Your task to perform on an android device: turn off notifications in google photos Image 0: 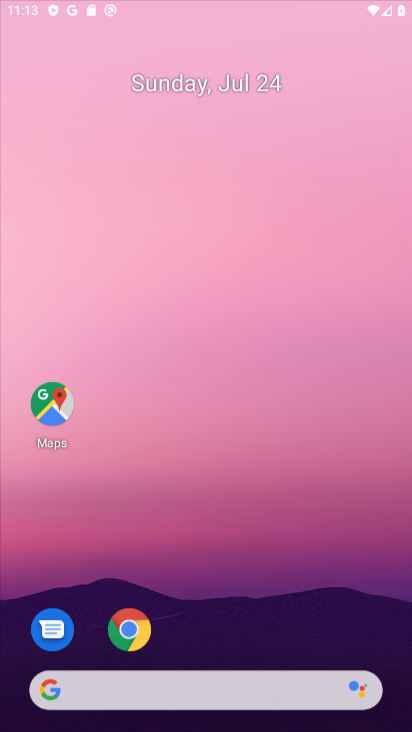
Step 0: press home button
Your task to perform on an android device: turn off notifications in google photos Image 1: 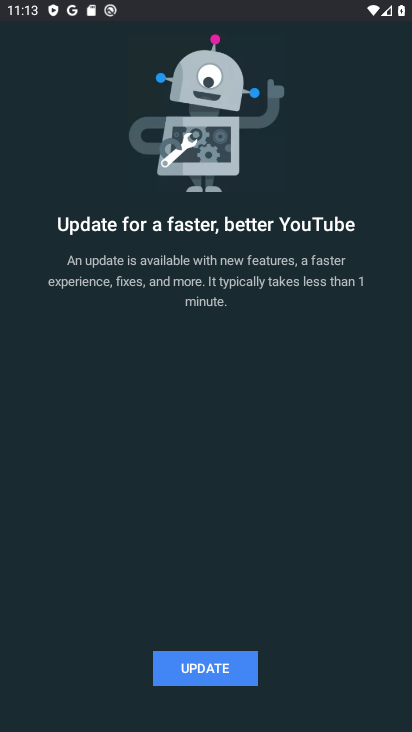
Step 1: press home button
Your task to perform on an android device: turn off notifications in google photos Image 2: 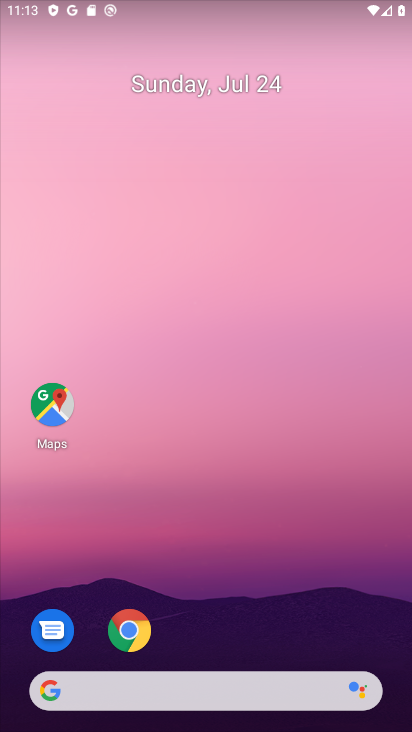
Step 2: drag from (324, 627) to (256, 263)
Your task to perform on an android device: turn off notifications in google photos Image 3: 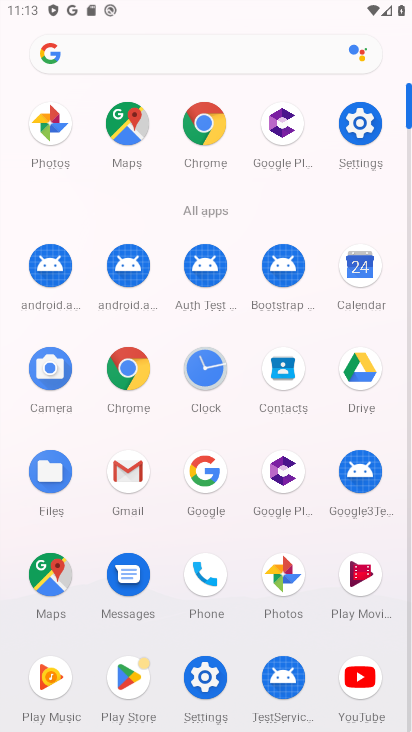
Step 3: click (273, 595)
Your task to perform on an android device: turn off notifications in google photos Image 4: 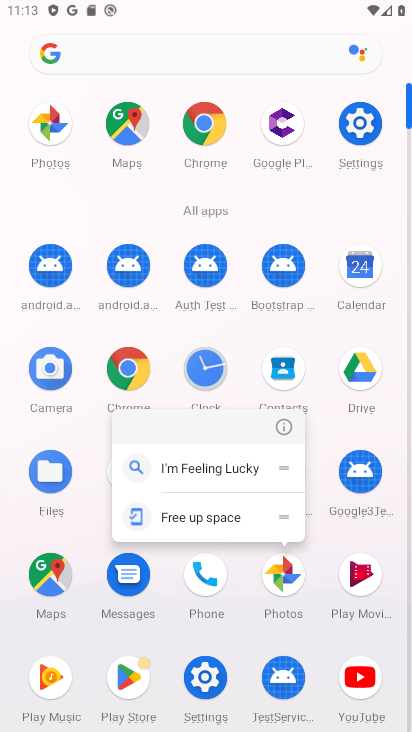
Step 4: click (268, 423)
Your task to perform on an android device: turn off notifications in google photos Image 5: 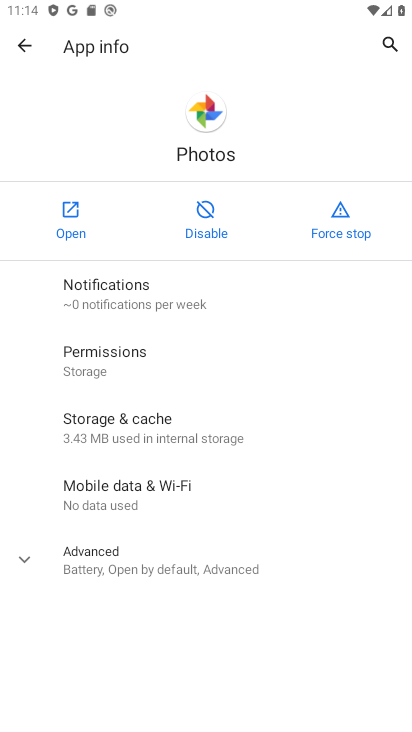
Step 5: click (111, 315)
Your task to perform on an android device: turn off notifications in google photos Image 6: 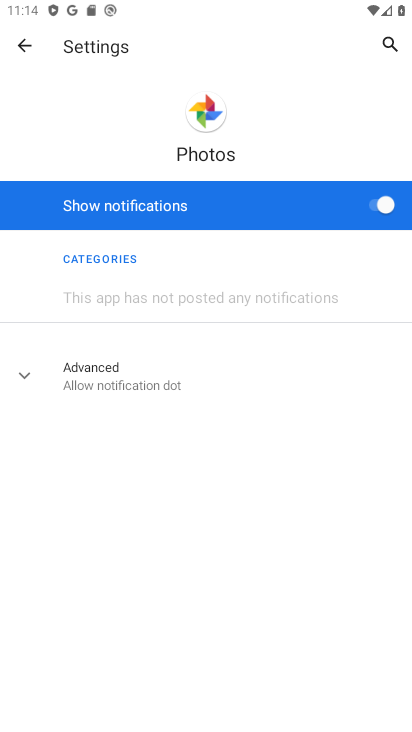
Step 6: click (372, 213)
Your task to perform on an android device: turn off notifications in google photos Image 7: 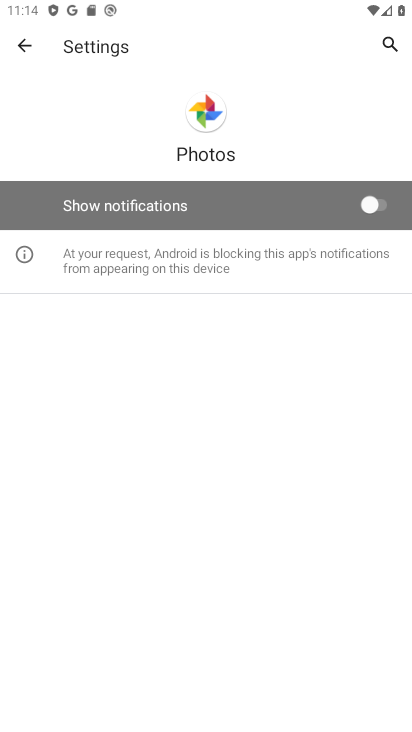
Step 7: task complete